Your task to perform on an android device: Open wifi settings Image 0: 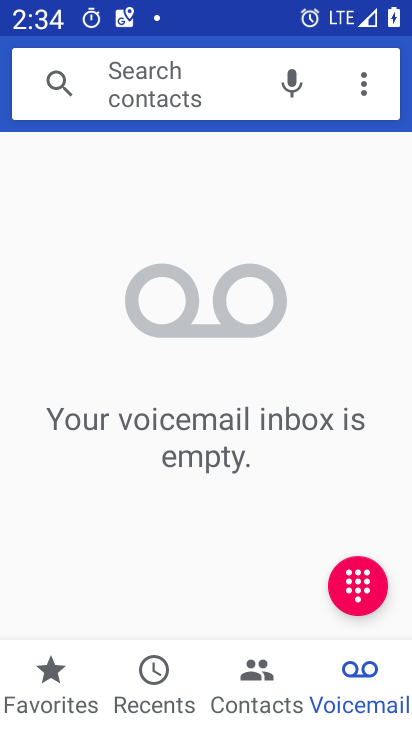
Step 0: press home button
Your task to perform on an android device: Open wifi settings Image 1: 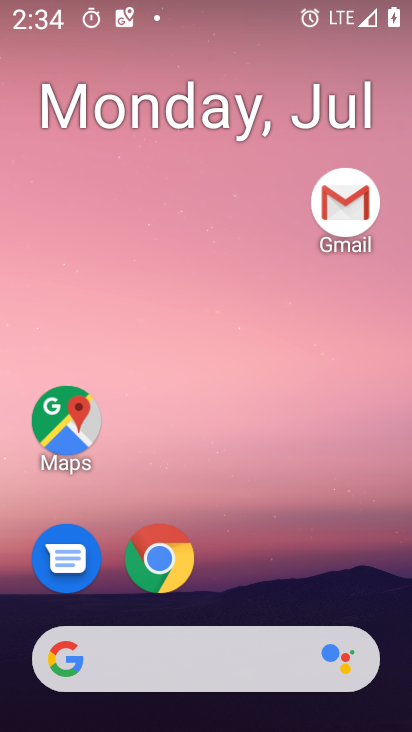
Step 1: drag from (344, 555) to (382, 34)
Your task to perform on an android device: Open wifi settings Image 2: 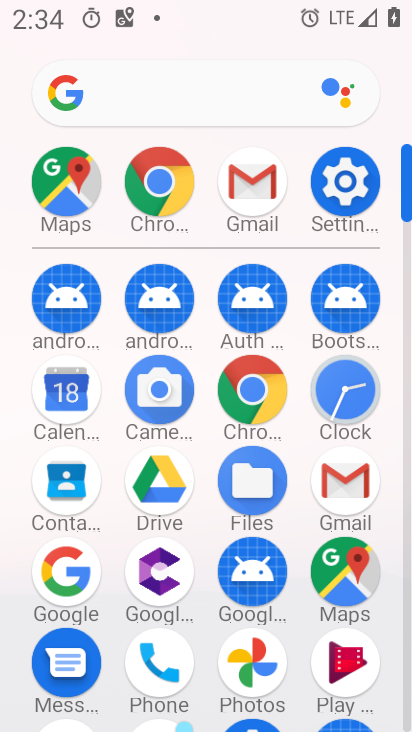
Step 2: click (343, 182)
Your task to perform on an android device: Open wifi settings Image 3: 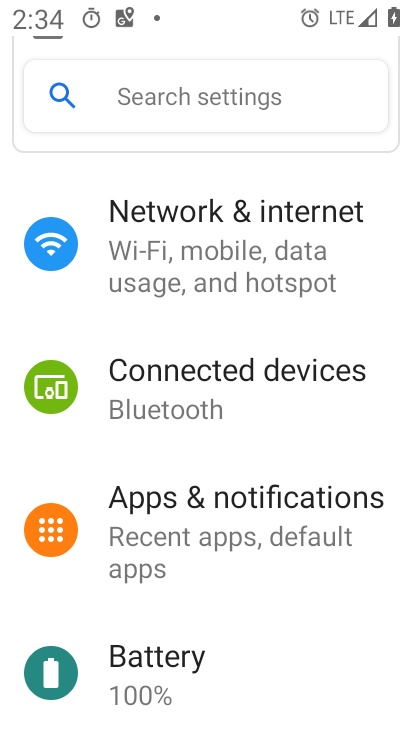
Step 3: drag from (346, 609) to (360, 504)
Your task to perform on an android device: Open wifi settings Image 4: 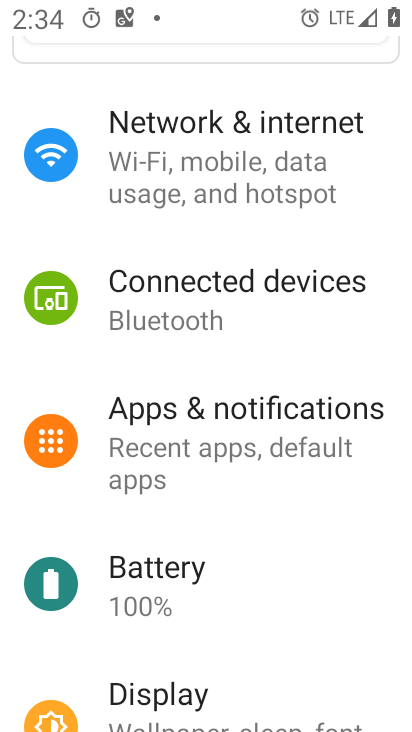
Step 4: drag from (353, 597) to (352, 492)
Your task to perform on an android device: Open wifi settings Image 5: 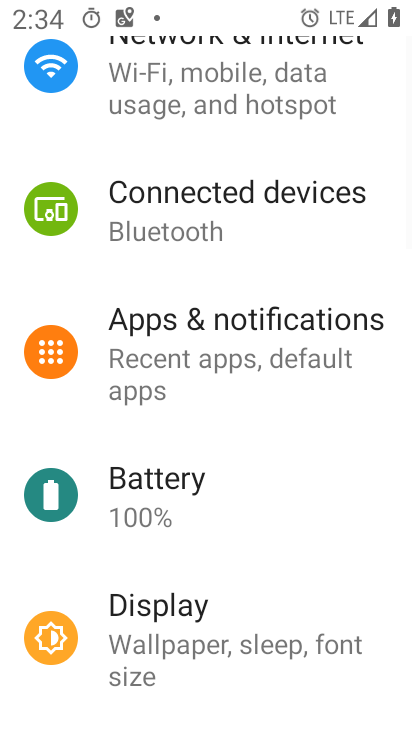
Step 5: drag from (352, 587) to (352, 467)
Your task to perform on an android device: Open wifi settings Image 6: 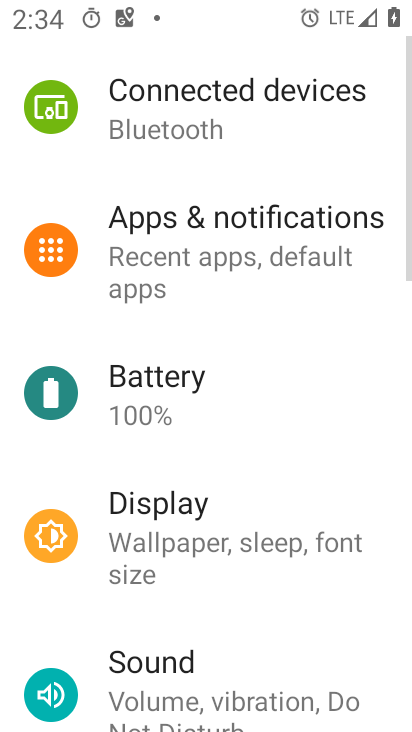
Step 6: drag from (356, 635) to (358, 540)
Your task to perform on an android device: Open wifi settings Image 7: 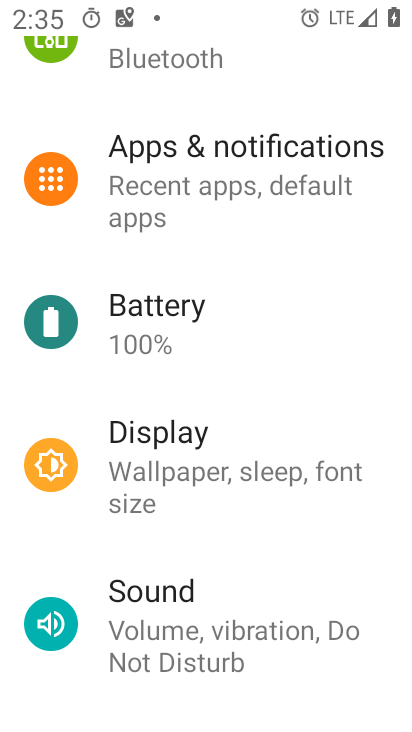
Step 7: drag from (356, 585) to (363, 472)
Your task to perform on an android device: Open wifi settings Image 8: 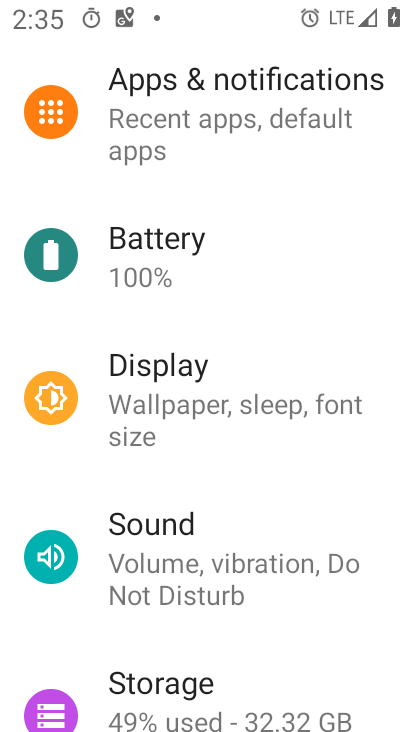
Step 8: drag from (361, 611) to (361, 492)
Your task to perform on an android device: Open wifi settings Image 9: 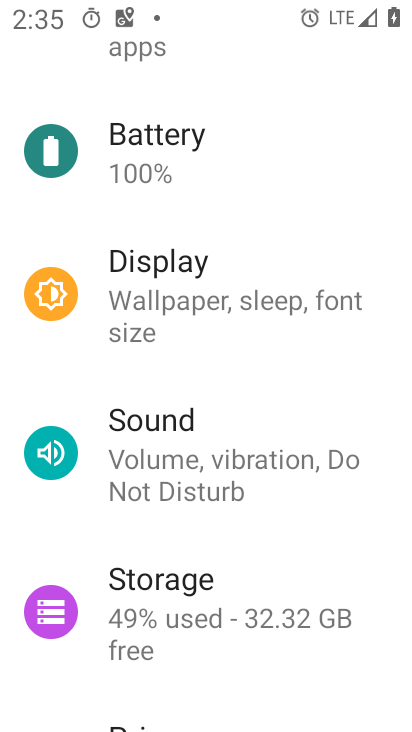
Step 9: drag from (350, 602) to (350, 475)
Your task to perform on an android device: Open wifi settings Image 10: 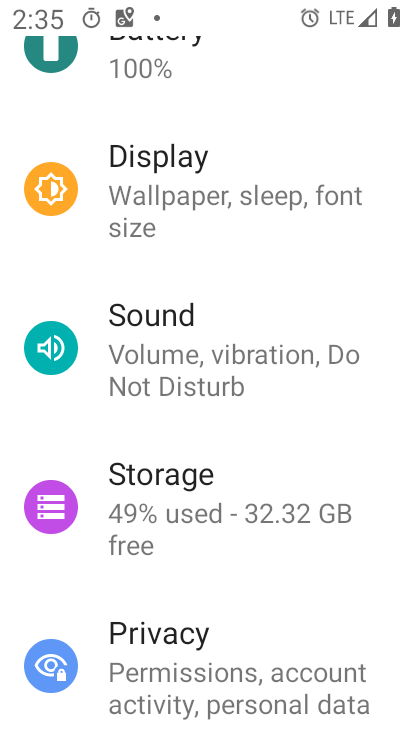
Step 10: drag from (338, 594) to (338, 439)
Your task to perform on an android device: Open wifi settings Image 11: 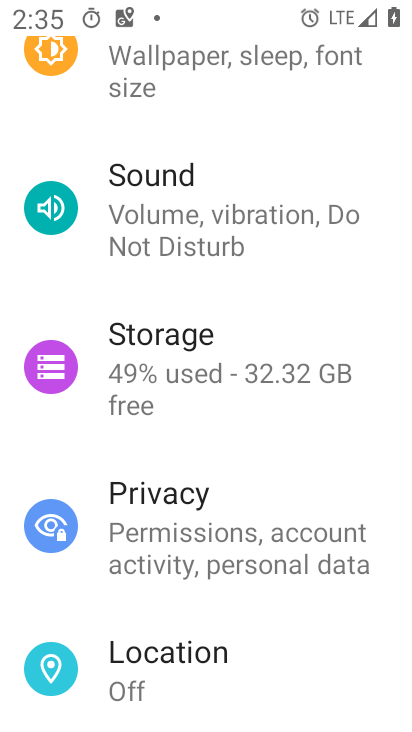
Step 11: drag from (354, 284) to (355, 408)
Your task to perform on an android device: Open wifi settings Image 12: 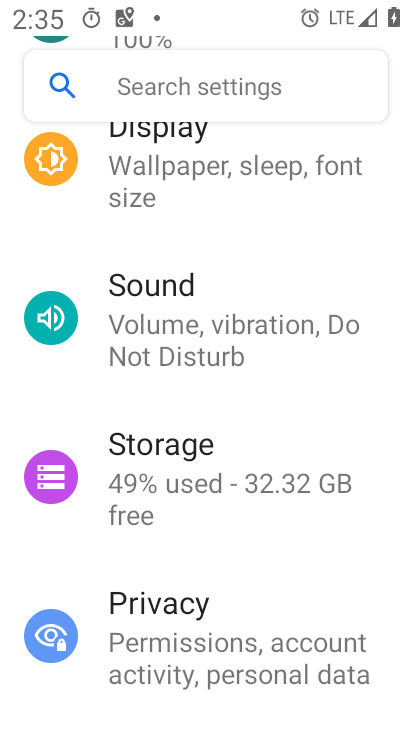
Step 12: drag from (384, 301) to (385, 411)
Your task to perform on an android device: Open wifi settings Image 13: 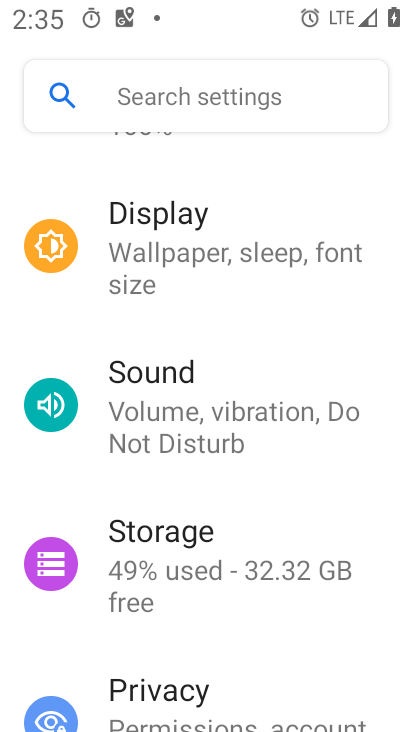
Step 13: drag from (379, 301) to (379, 403)
Your task to perform on an android device: Open wifi settings Image 14: 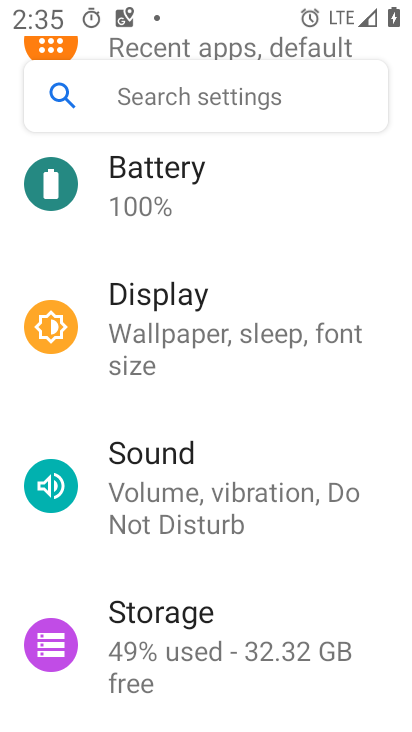
Step 14: drag from (378, 262) to (378, 401)
Your task to perform on an android device: Open wifi settings Image 15: 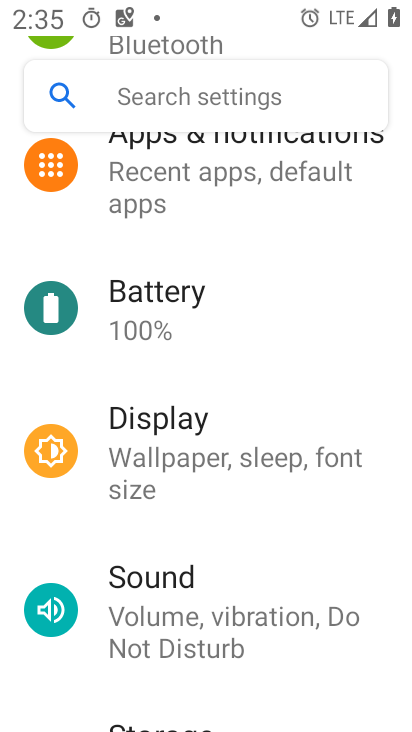
Step 15: drag from (357, 247) to (357, 382)
Your task to perform on an android device: Open wifi settings Image 16: 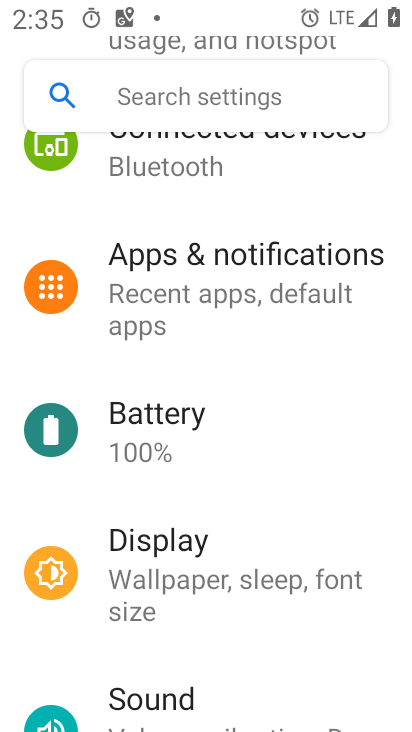
Step 16: drag from (369, 280) to (370, 424)
Your task to perform on an android device: Open wifi settings Image 17: 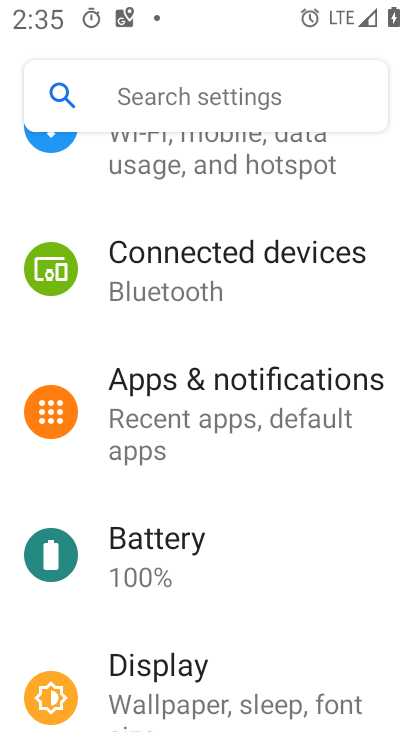
Step 17: drag from (365, 299) to (376, 446)
Your task to perform on an android device: Open wifi settings Image 18: 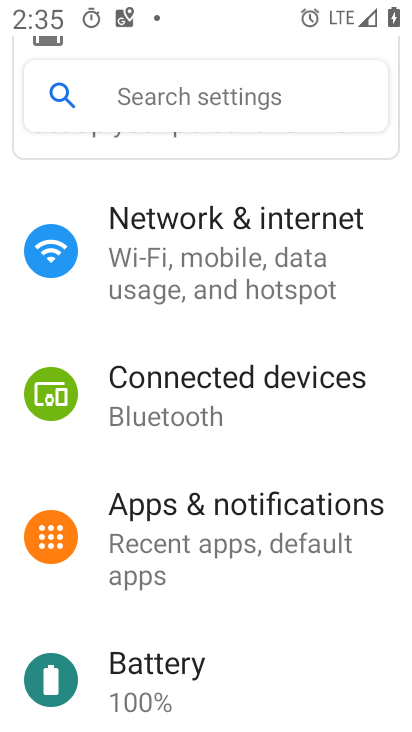
Step 18: drag from (374, 262) to (371, 390)
Your task to perform on an android device: Open wifi settings Image 19: 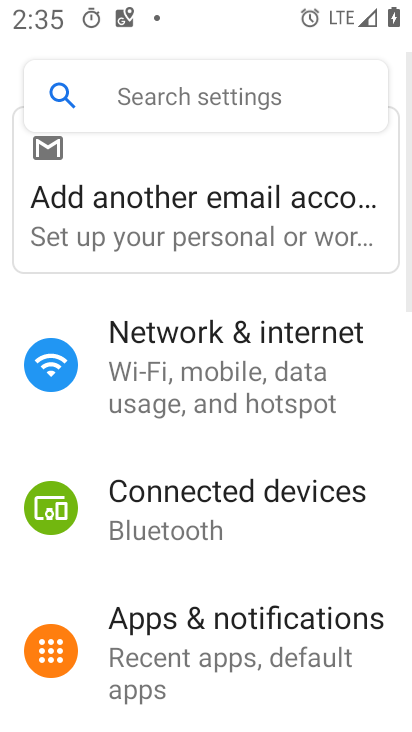
Step 19: click (268, 361)
Your task to perform on an android device: Open wifi settings Image 20: 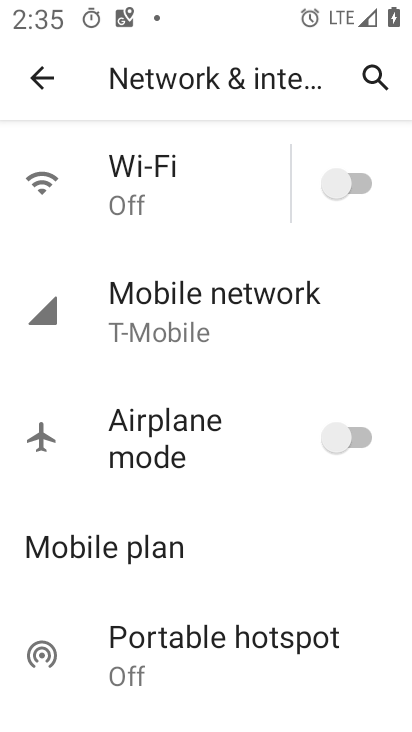
Step 20: click (185, 181)
Your task to perform on an android device: Open wifi settings Image 21: 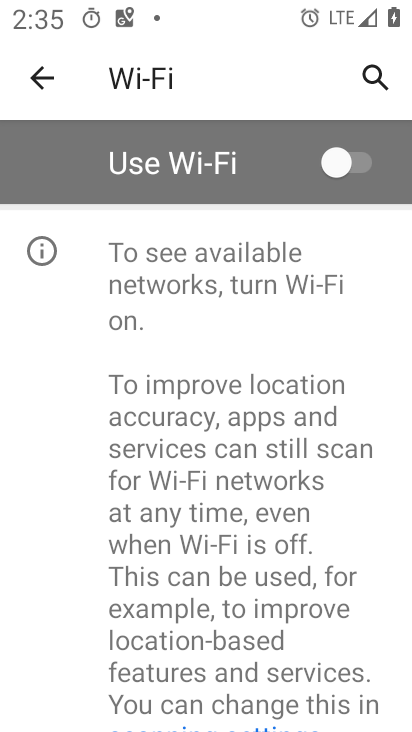
Step 21: task complete